Your task to perform on an android device: turn off airplane mode Image 0: 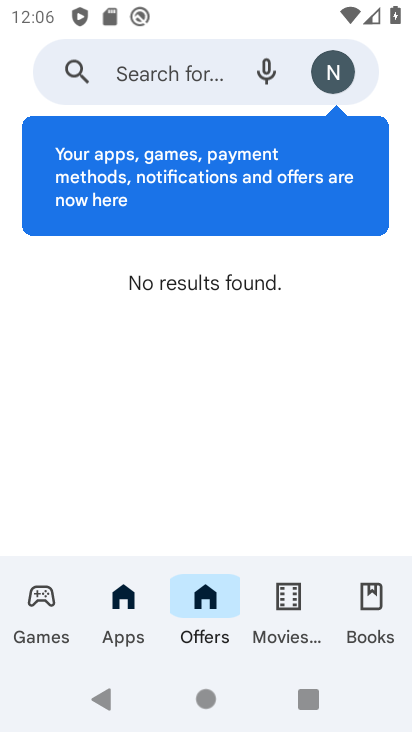
Step 0: press home button
Your task to perform on an android device: turn off airplane mode Image 1: 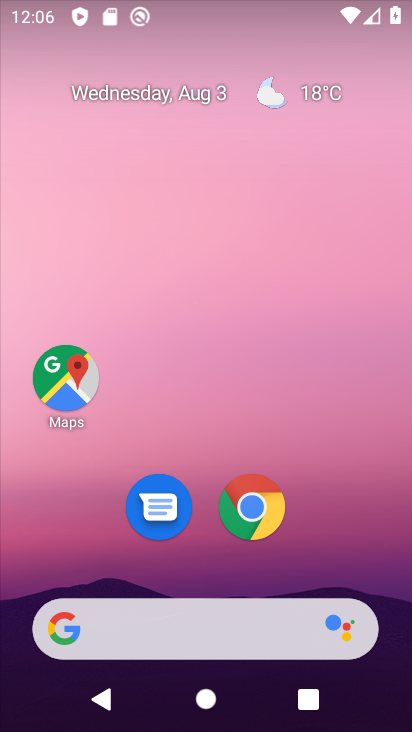
Step 1: drag from (146, 613) to (160, 65)
Your task to perform on an android device: turn off airplane mode Image 2: 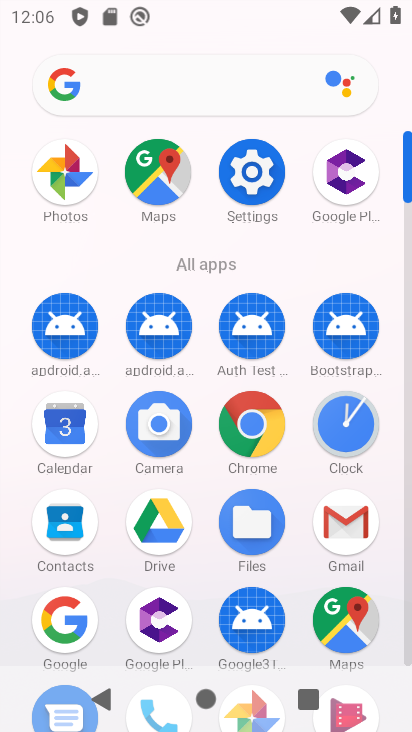
Step 2: click (257, 167)
Your task to perform on an android device: turn off airplane mode Image 3: 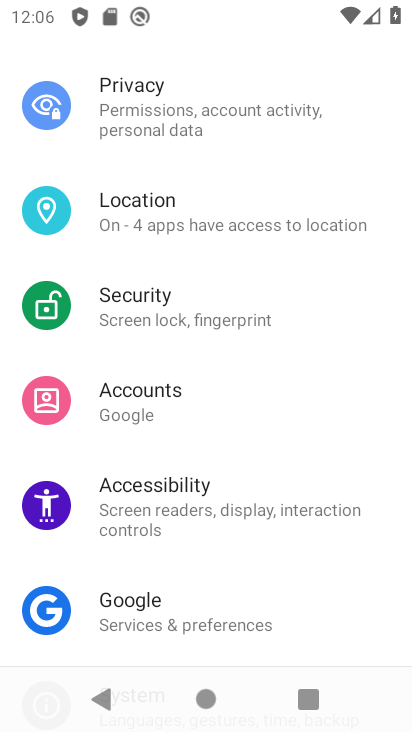
Step 3: drag from (255, 128) to (344, 662)
Your task to perform on an android device: turn off airplane mode Image 4: 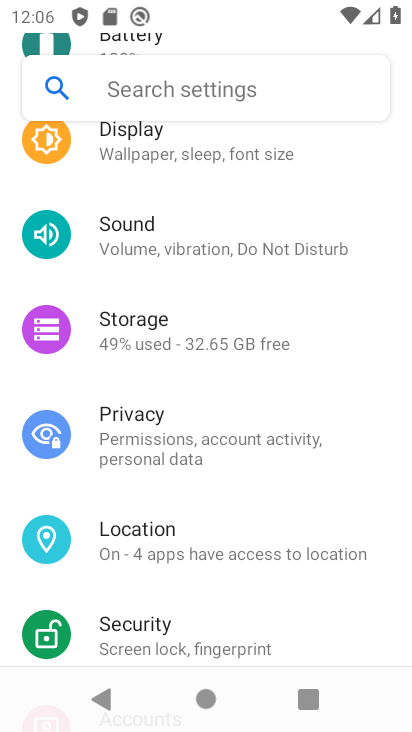
Step 4: drag from (277, 215) to (301, 626)
Your task to perform on an android device: turn off airplane mode Image 5: 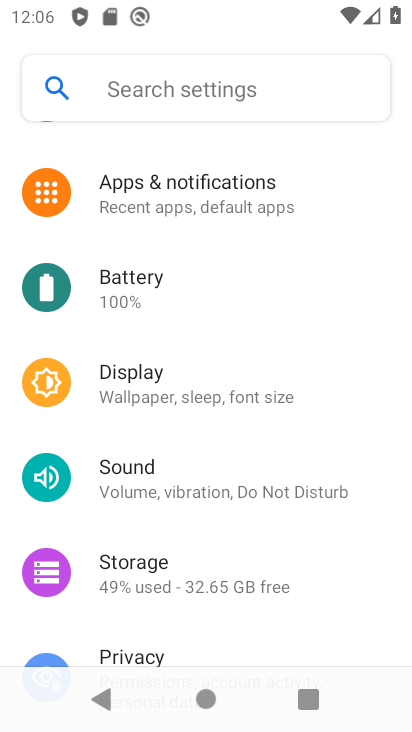
Step 5: drag from (333, 207) to (346, 545)
Your task to perform on an android device: turn off airplane mode Image 6: 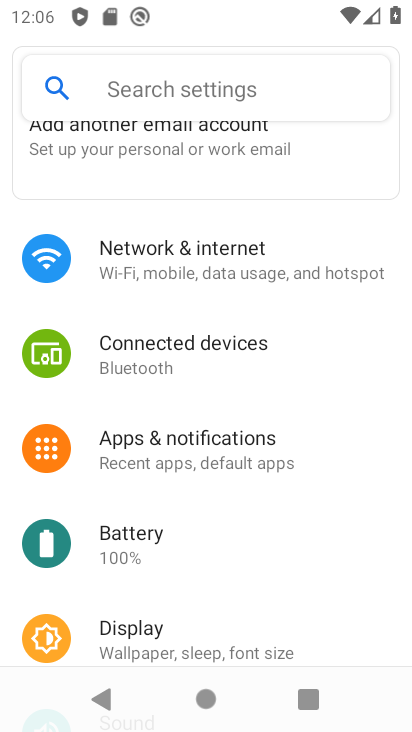
Step 6: click (269, 276)
Your task to perform on an android device: turn off airplane mode Image 7: 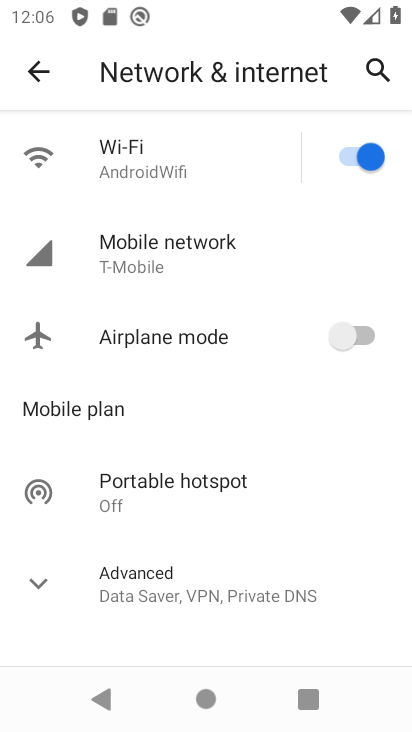
Step 7: task complete